Your task to perform on an android device: toggle data saver in the chrome app Image 0: 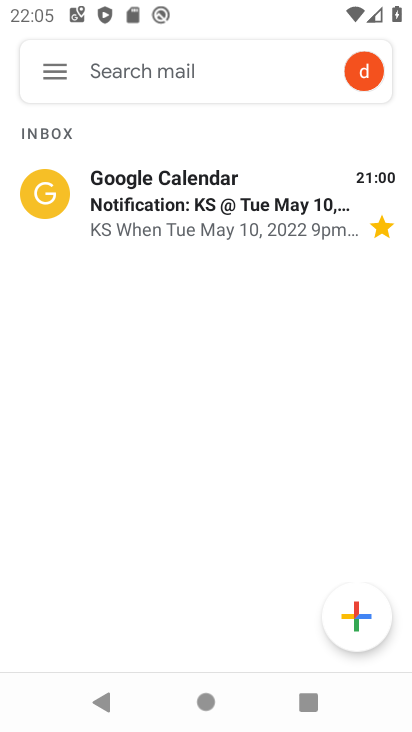
Step 0: press home button
Your task to perform on an android device: toggle data saver in the chrome app Image 1: 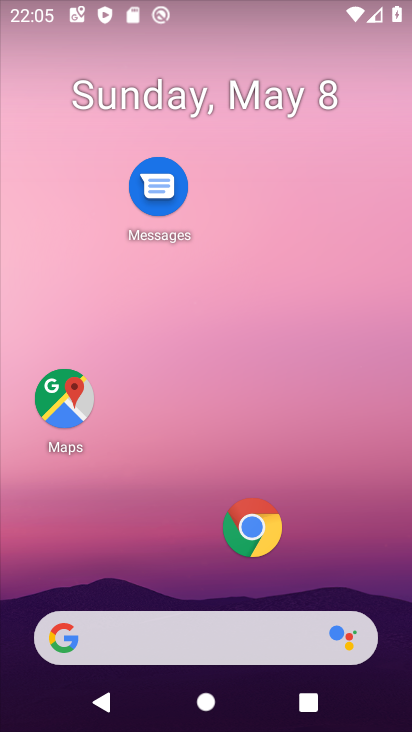
Step 1: drag from (181, 580) to (147, 136)
Your task to perform on an android device: toggle data saver in the chrome app Image 2: 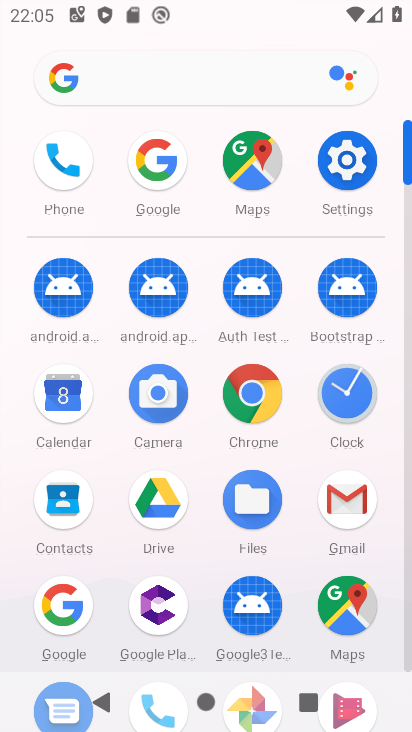
Step 2: click (254, 392)
Your task to perform on an android device: toggle data saver in the chrome app Image 3: 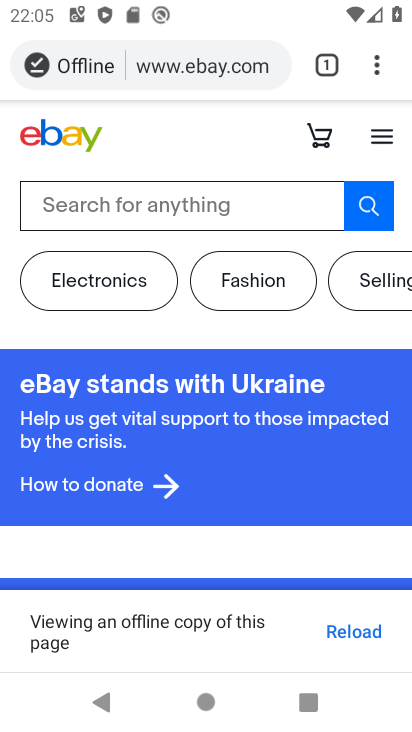
Step 3: click (371, 66)
Your task to perform on an android device: toggle data saver in the chrome app Image 4: 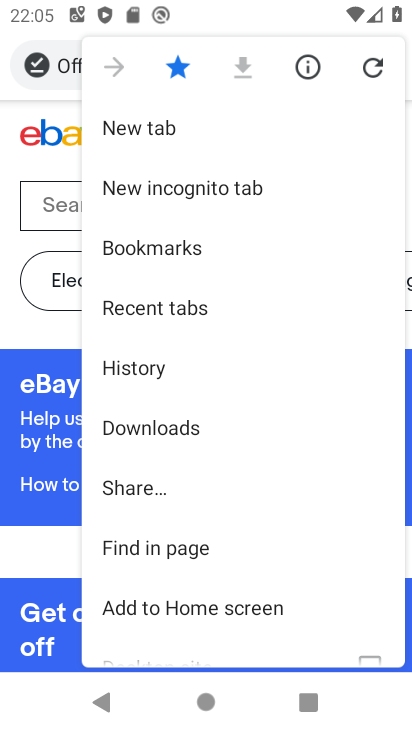
Step 4: drag from (258, 473) to (240, 17)
Your task to perform on an android device: toggle data saver in the chrome app Image 5: 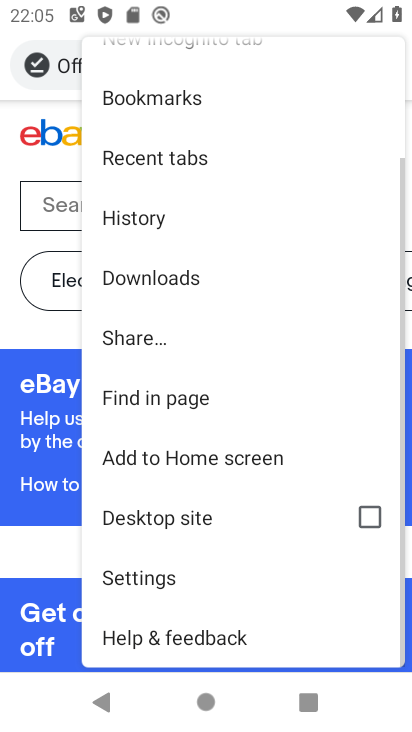
Step 5: click (182, 570)
Your task to perform on an android device: toggle data saver in the chrome app Image 6: 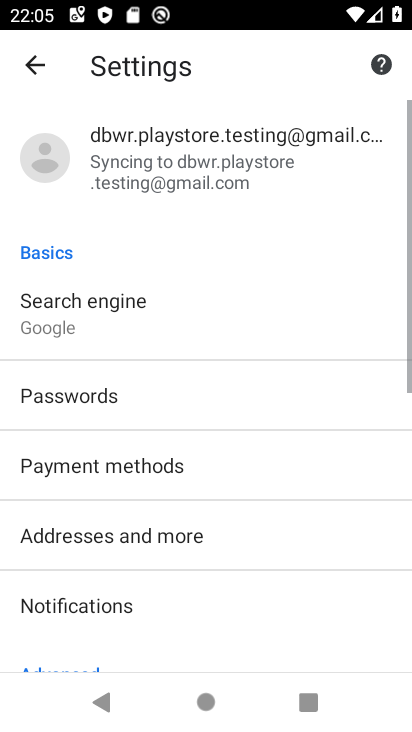
Step 6: drag from (254, 604) to (271, 103)
Your task to perform on an android device: toggle data saver in the chrome app Image 7: 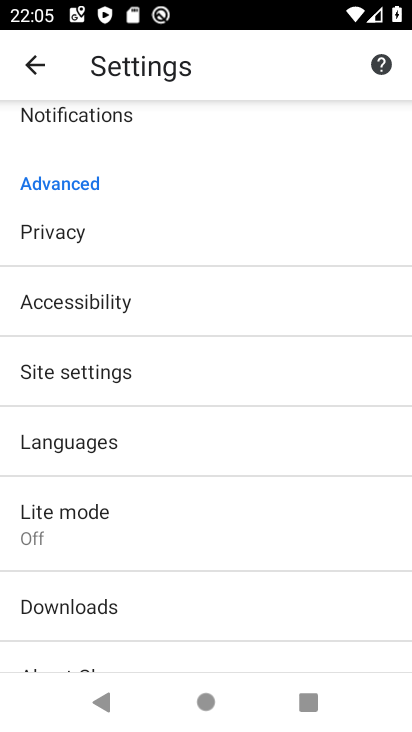
Step 7: click (96, 523)
Your task to perform on an android device: toggle data saver in the chrome app Image 8: 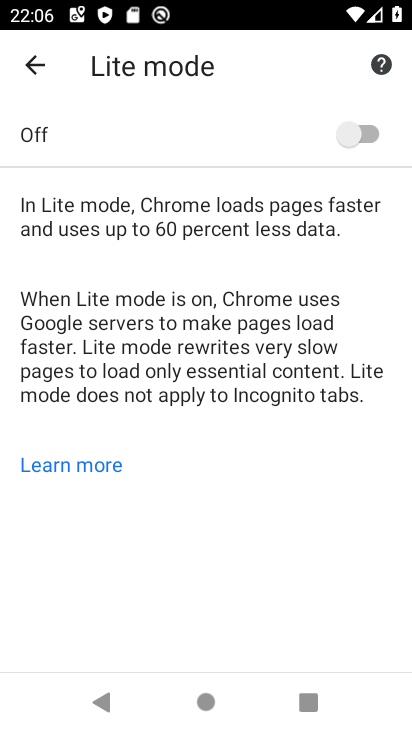
Step 8: click (352, 130)
Your task to perform on an android device: toggle data saver in the chrome app Image 9: 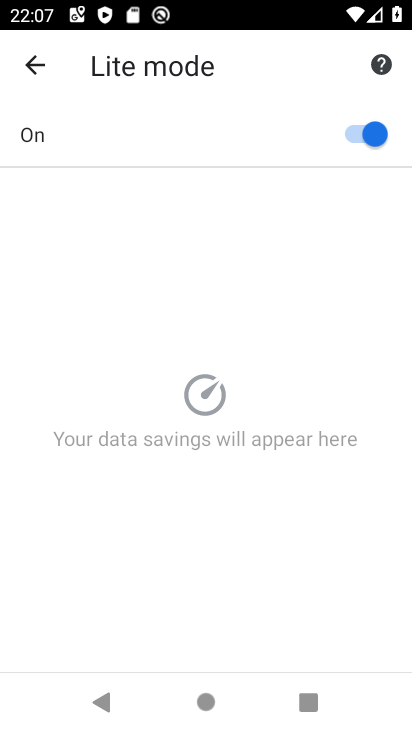
Step 9: task complete